Your task to perform on an android device: change notifications settings Image 0: 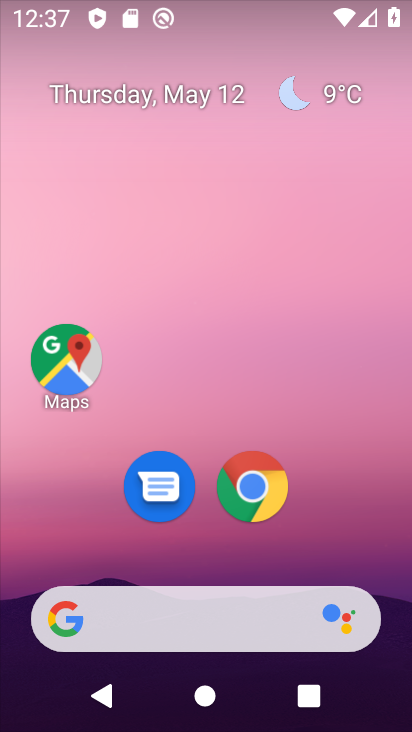
Step 0: drag from (219, 598) to (386, 58)
Your task to perform on an android device: change notifications settings Image 1: 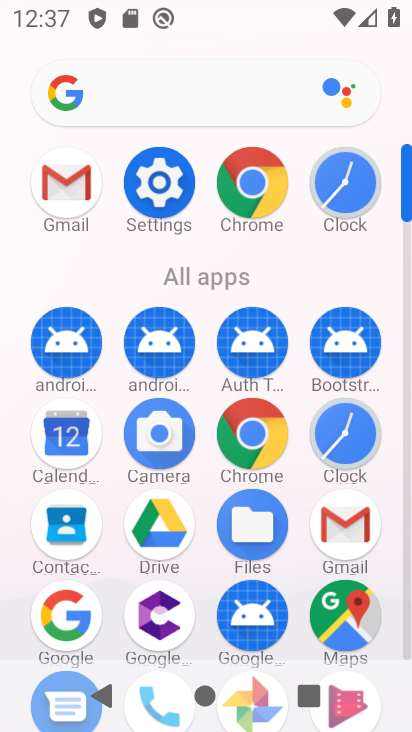
Step 1: click (146, 188)
Your task to perform on an android device: change notifications settings Image 2: 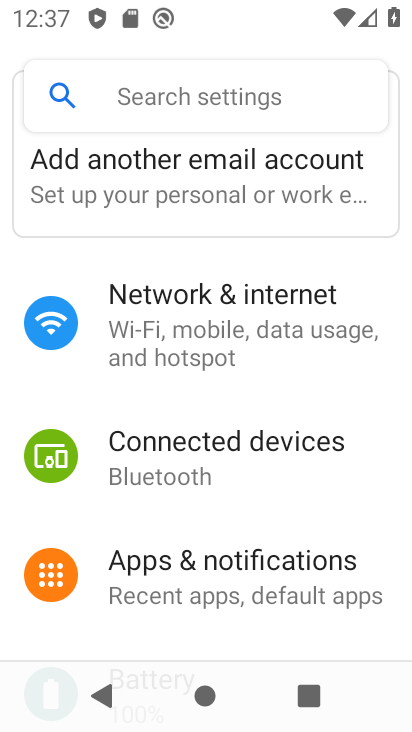
Step 2: click (192, 572)
Your task to perform on an android device: change notifications settings Image 3: 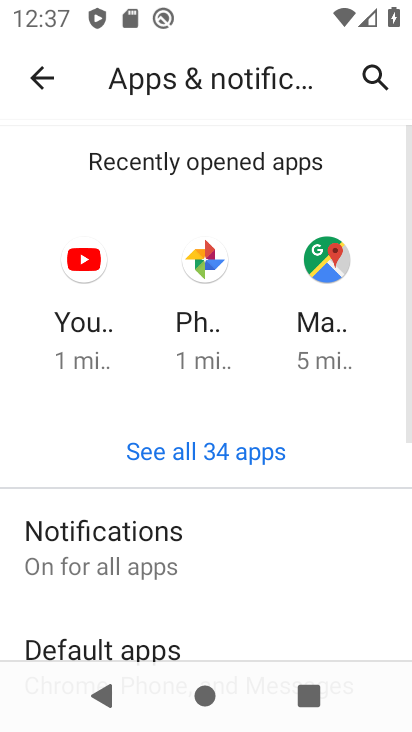
Step 3: drag from (205, 616) to (258, 299)
Your task to perform on an android device: change notifications settings Image 4: 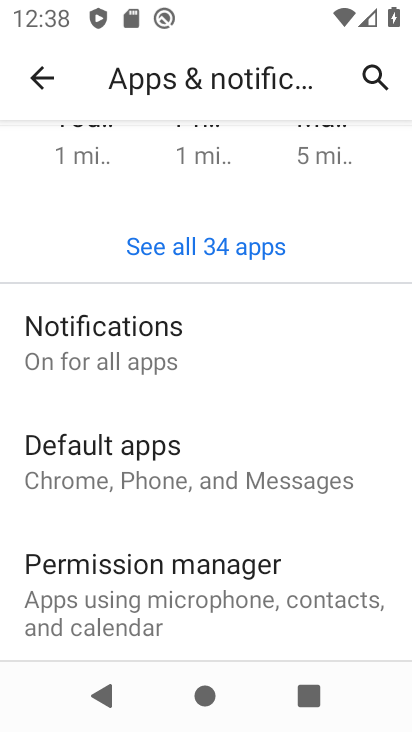
Step 4: click (131, 346)
Your task to perform on an android device: change notifications settings Image 5: 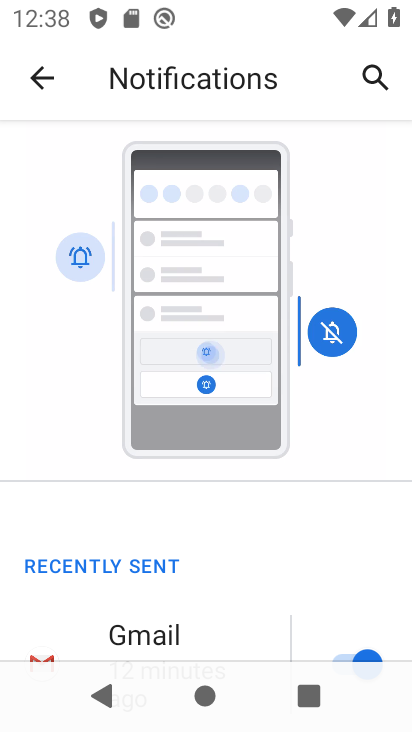
Step 5: drag from (338, 591) to (383, 171)
Your task to perform on an android device: change notifications settings Image 6: 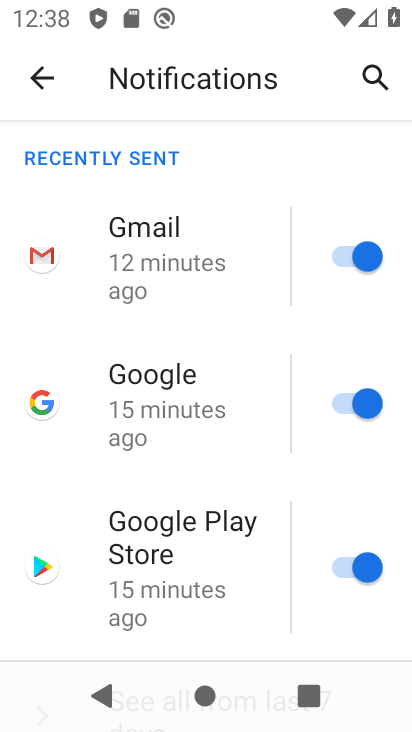
Step 6: click (350, 257)
Your task to perform on an android device: change notifications settings Image 7: 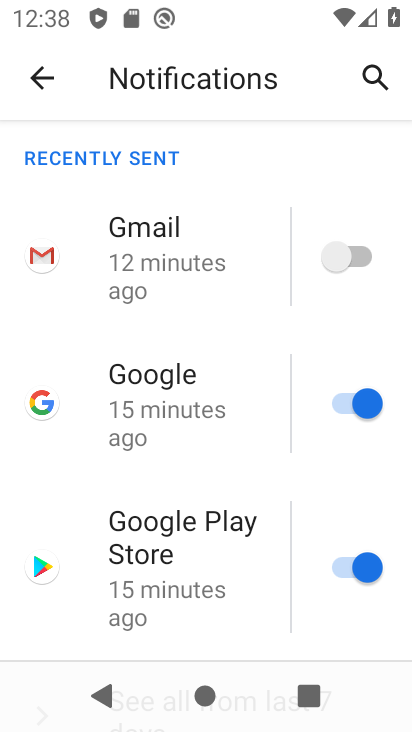
Step 7: click (339, 403)
Your task to perform on an android device: change notifications settings Image 8: 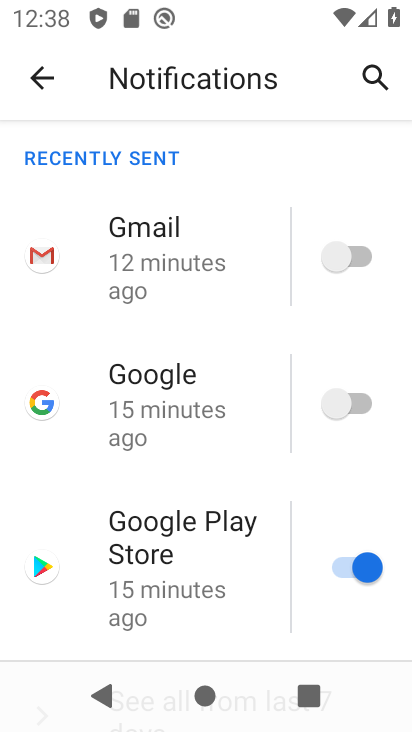
Step 8: click (354, 570)
Your task to perform on an android device: change notifications settings Image 9: 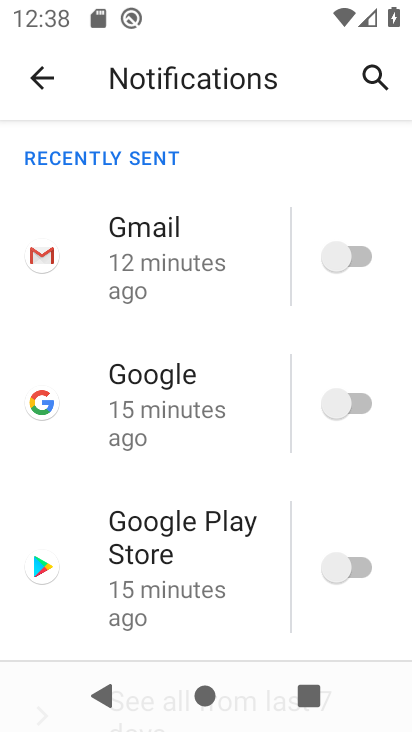
Step 9: drag from (253, 624) to (317, 297)
Your task to perform on an android device: change notifications settings Image 10: 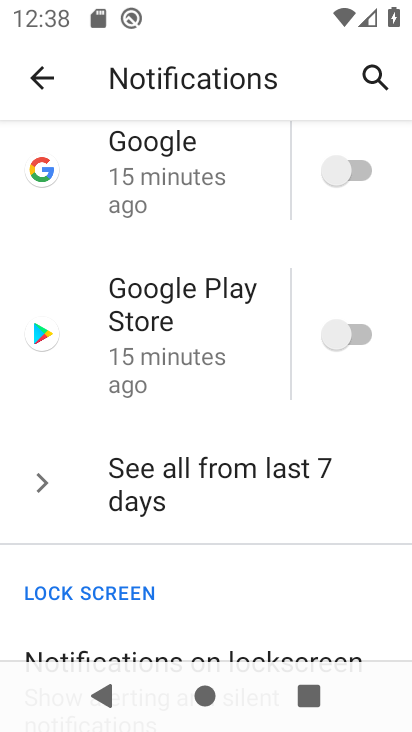
Step 10: click (298, 477)
Your task to perform on an android device: change notifications settings Image 11: 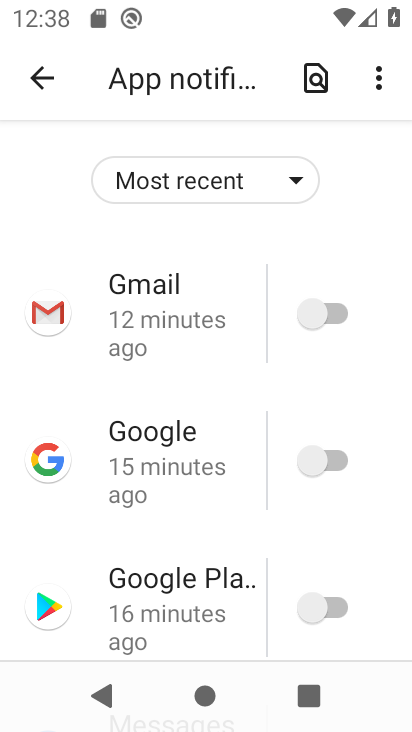
Step 11: drag from (300, 584) to (354, 308)
Your task to perform on an android device: change notifications settings Image 12: 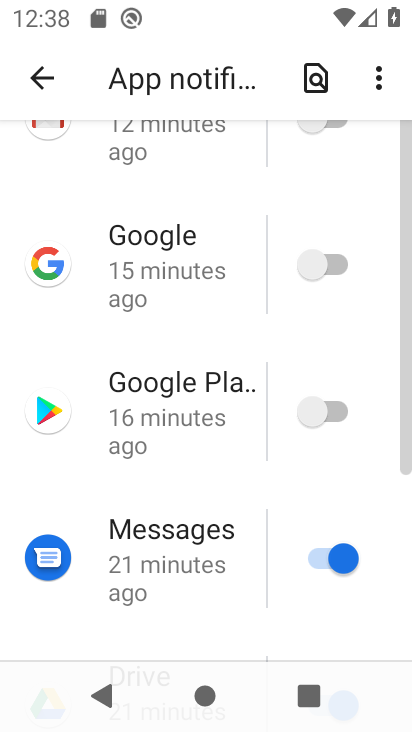
Step 12: click (307, 562)
Your task to perform on an android device: change notifications settings Image 13: 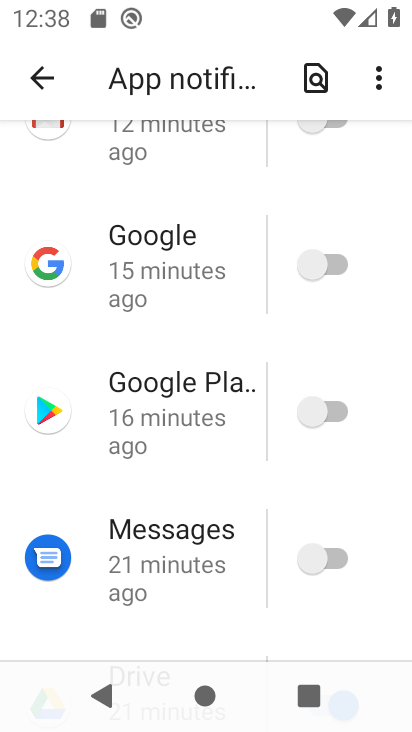
Step 13: drag from (225, 610) to (283, 326)
Your task to perform on an android device: change notifications settings Image 14: 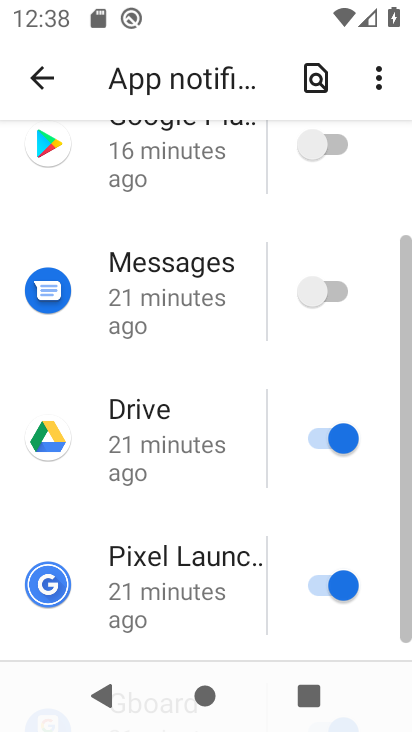
Step 14: click (335, 444)
Your task to perform on an android device: change notifications settings Image 15: 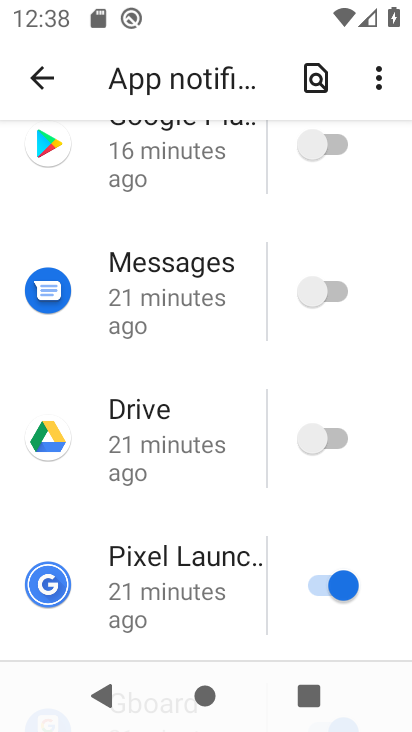
Step 15: click (326, 590)
Your task to perform on an android device: change notifications settings Image 16: 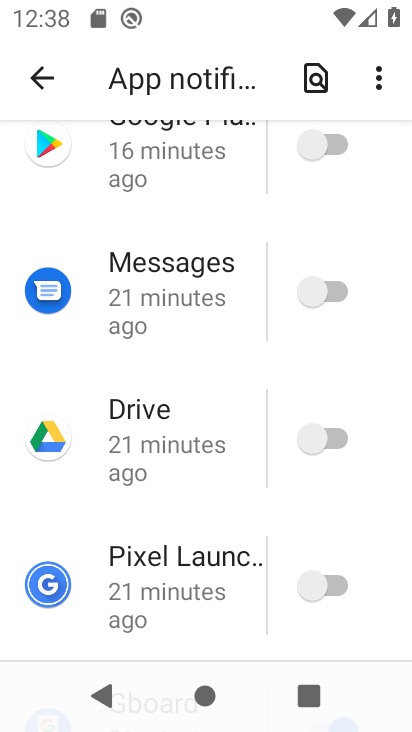
Step 16: drag from (235, 570) to (281, 238)
Your task to perform on an android device: change notifications settings Image 17: 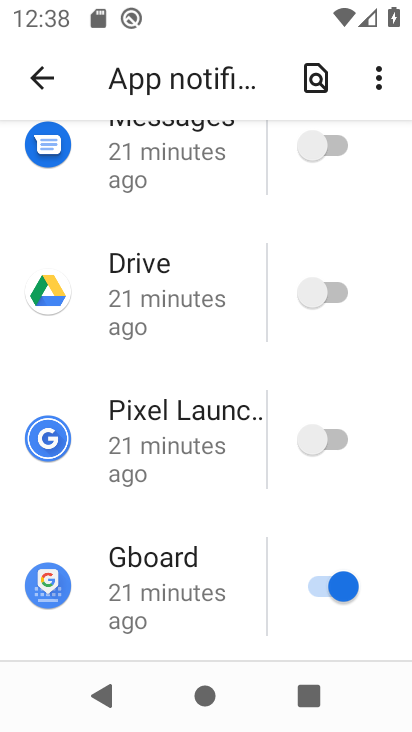
Step 17: click (323, 579)
Your task to perform on an android device: change notifications settings Image 18: 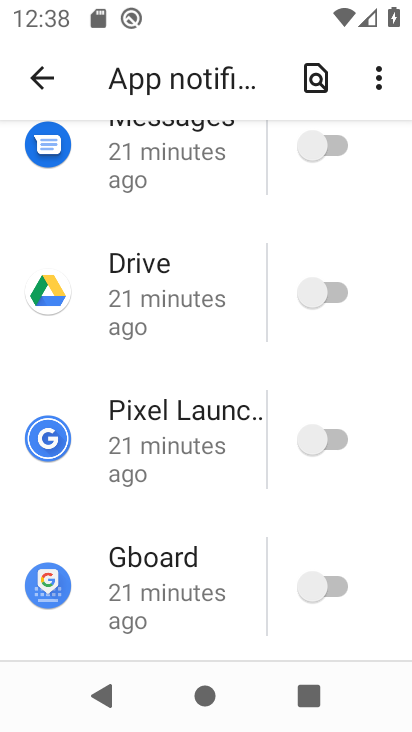
Step 18: task complete